Your task to perform on an android device: What is the news today? Image 0: 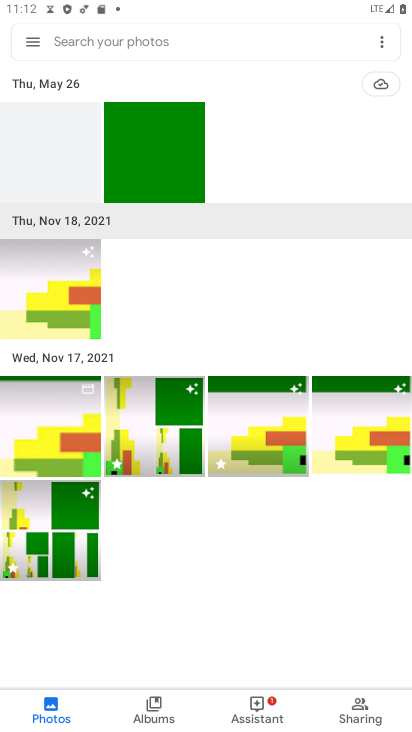
Step 0: press back button
Your task to perform on an android device: What is the news today? Image 1: 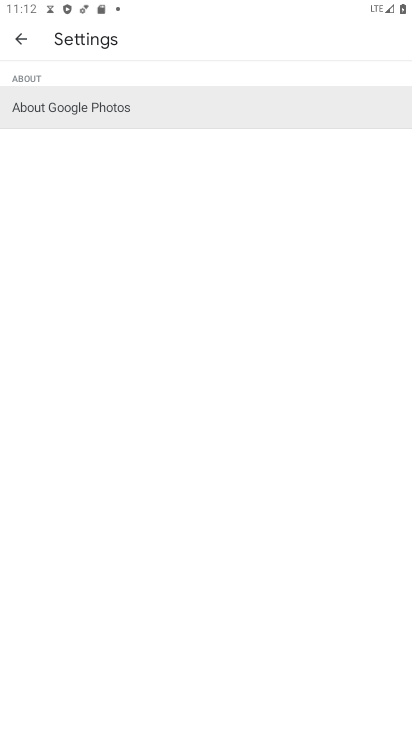
Step 1: click (24, 33)
Your task to perform on an android device: What is the news today? Image 2: 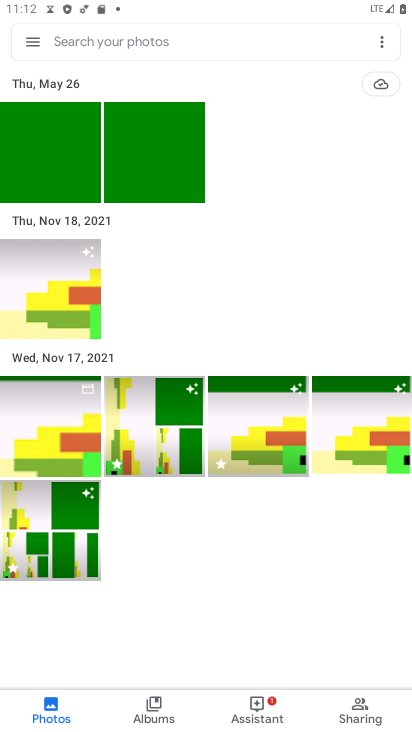
Step 2: press back button
Your task to perform on an android device: What is the news today? Image 3: 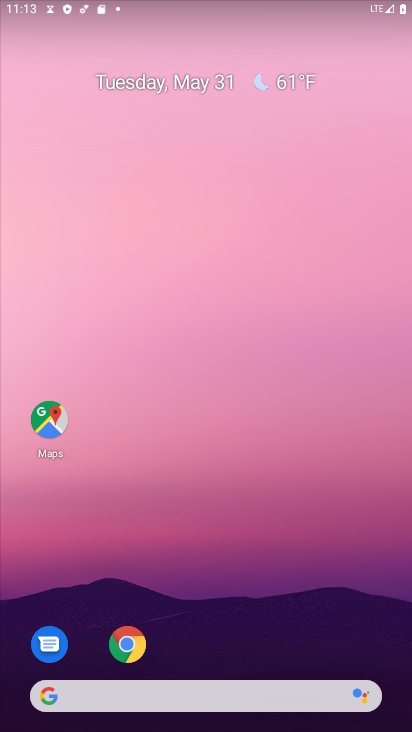
Step 3: click (223, 705)
Your task to perform on an android device: What is the news today? Image 4: 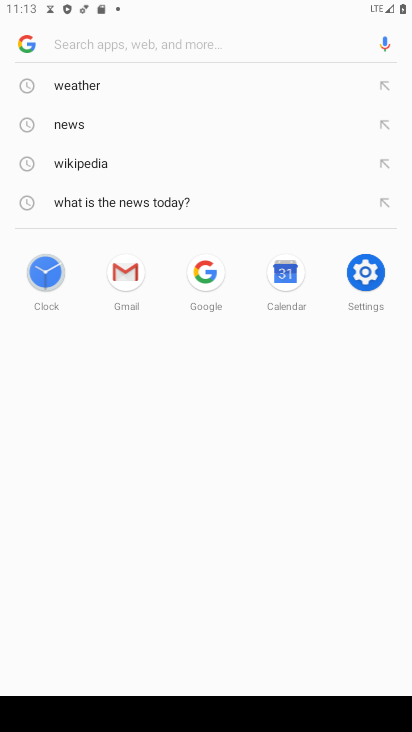
Step 4: click (83, 116)
Your task to perform on an android device: What is the news today? Image 5: 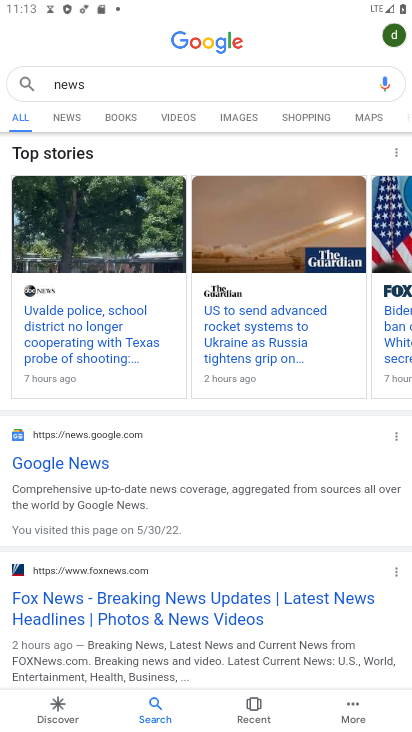
Step 5: task complete